Your task to perform on an android device: toggle priority inbox in the gmail app Image 0: 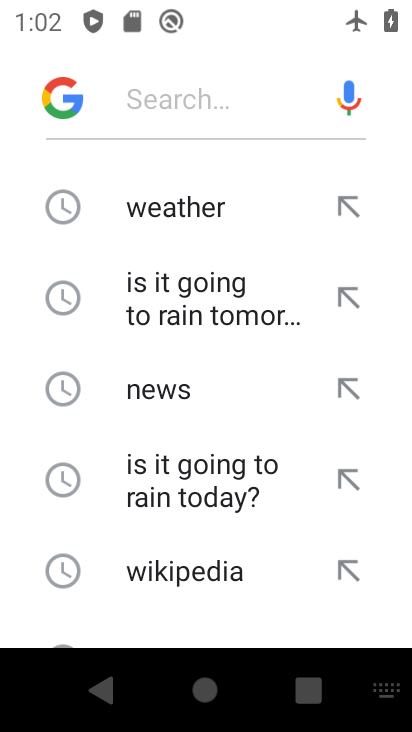
Step 0: press home button
Your task to perform on an android device: toggle priority inbox in the gmail app Image 1: 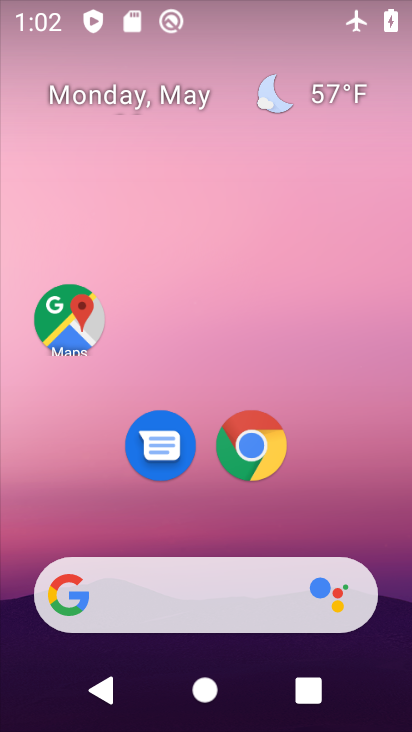
Step 1: drag from (399, 634) to (336, 51)
Your task to perform on an android device: toggle priority inbox in the gmail app Image 2: 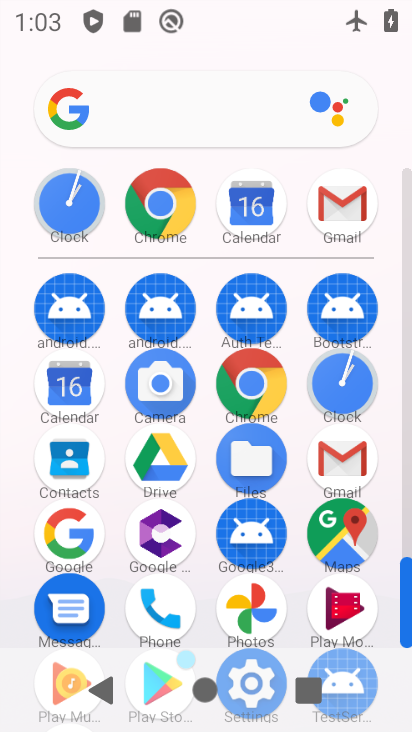
Step 2: click (360, 461)
Your task to perform on an android device: toggle priority inbox in the gmail app Image 3: 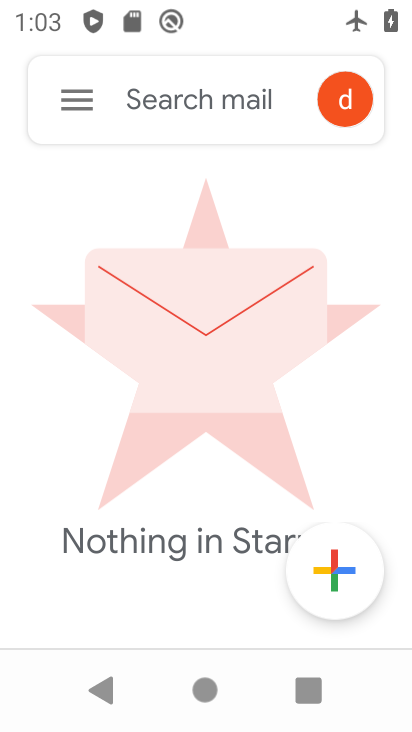
Step 3: click (79, 101)
Your task to perform on an android device: toggle priority inbox in the gmail app Image 4: 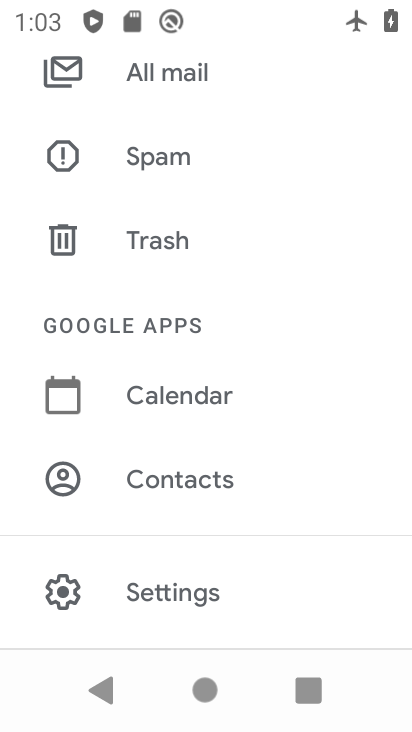
Step 4: click (131, 593)
Your task to perform on an android device: toggle priority inbox in the gmail app Image 5: 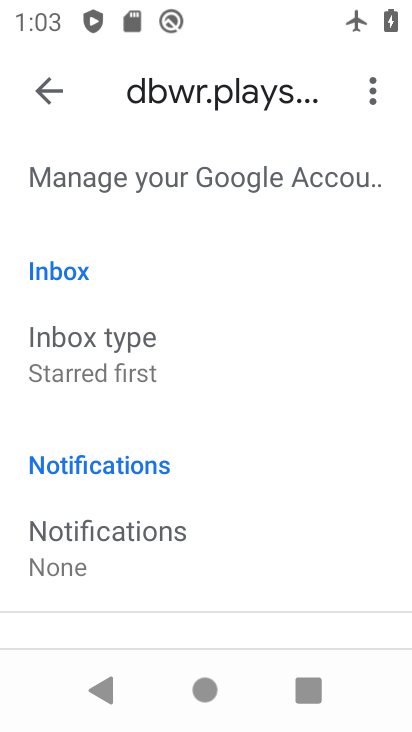
Step 5: click (178, 361)
Your task to perform on an android device: toggle priority inbox in the gmail app Image 6: 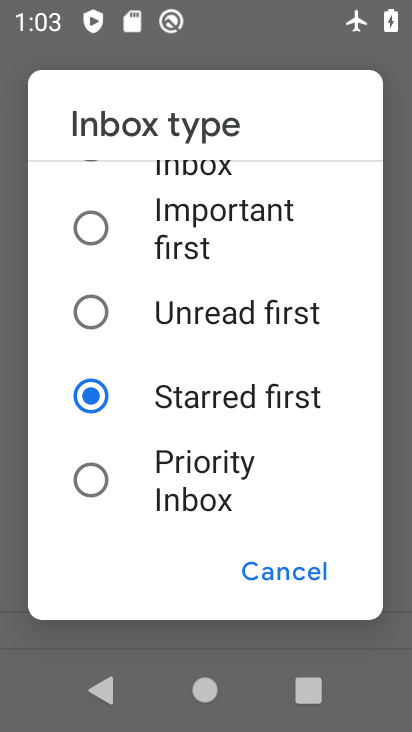
Step 6: click (210, 337)
Your task to perform on an android device: toggle priority inbox in the gmail app Image 7: 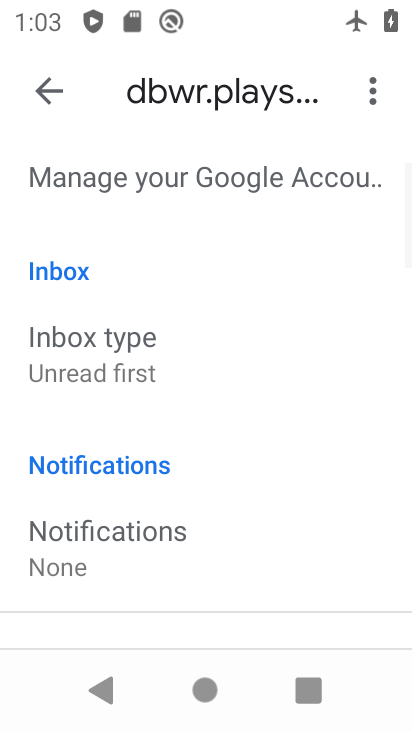
Step 7: task complete